Your task to perform on an android device: Go to Reddit.com Image 0: 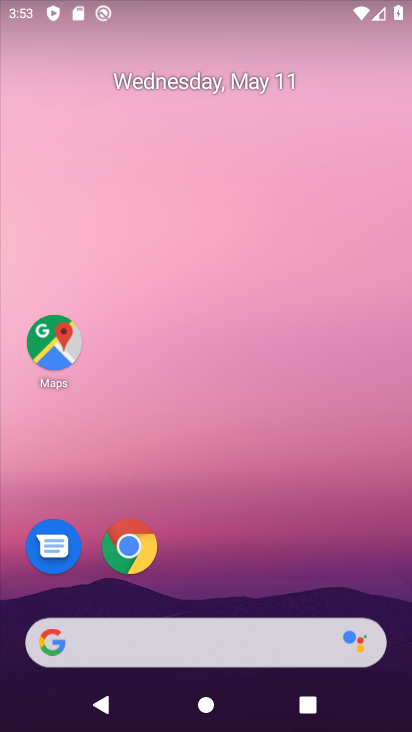
Step 0: drag from (159, 615) to (219, 224)
Your task to perform on an android device: Go to Reddit.com Image 1: 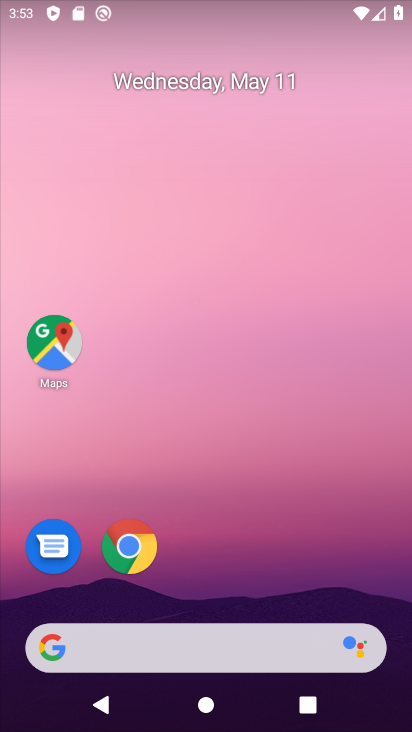
Step 1: click (126, 543)
Your task to perform on an android device: Go to Reddit.com Image 2: 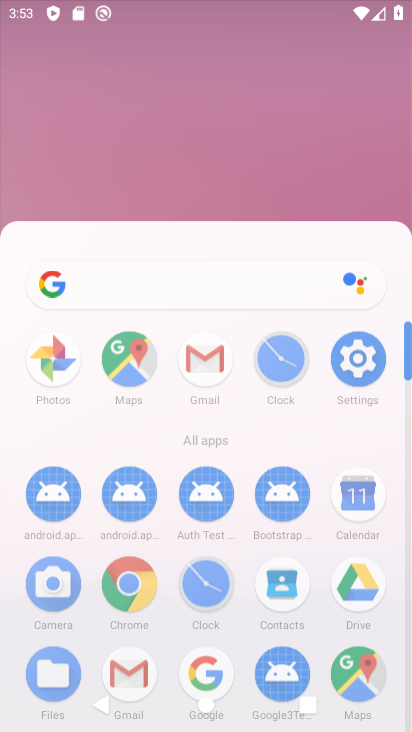
Step 2: drag from (174, 627) to (183, 259)
Your task to perform on an android device: Go to Reddit.com Image 3: 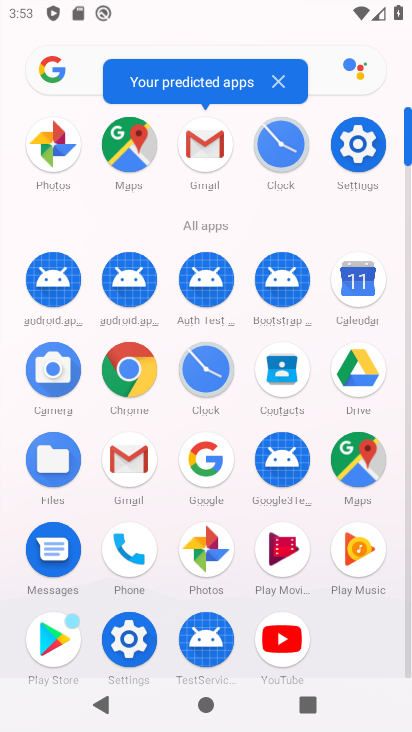
Step 3: click (133, 362)
Your task to perform on an android device: Go to Reddit.com Image 4: 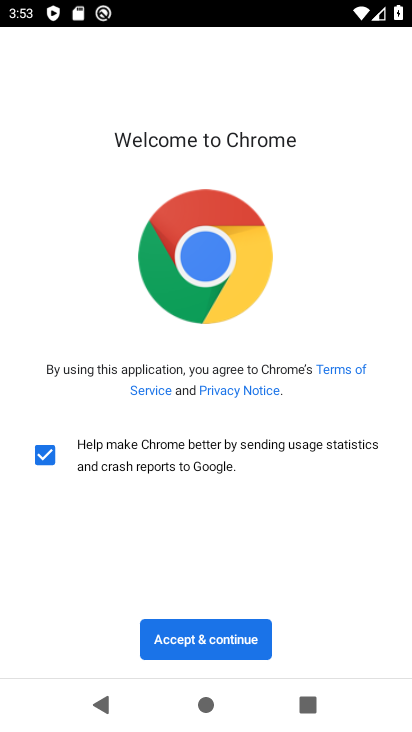
Step 4: click (208, 636)
Your task to perform on an android device: Go to Reddit.com Image 5: 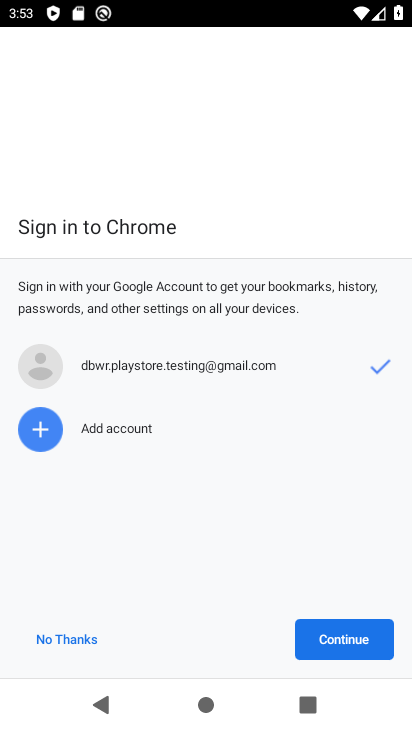
Step 5: click (343, 648)
Your task to perform on an android device: Go to Reddit.com Image 6: 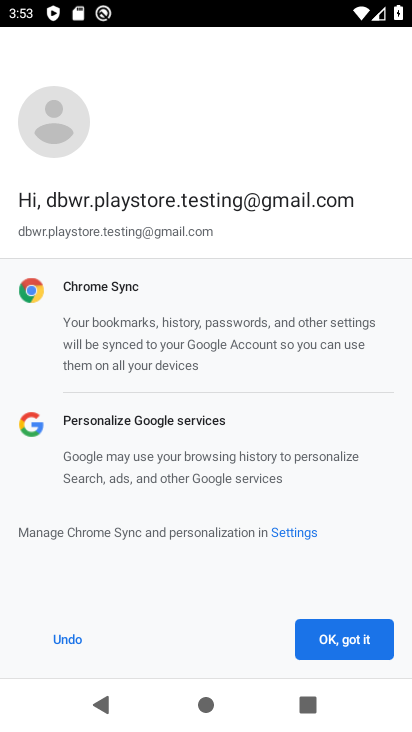
Step 6: click (330, 642)
Your task to perform on an android device: Go to Reddit.com Image 7: 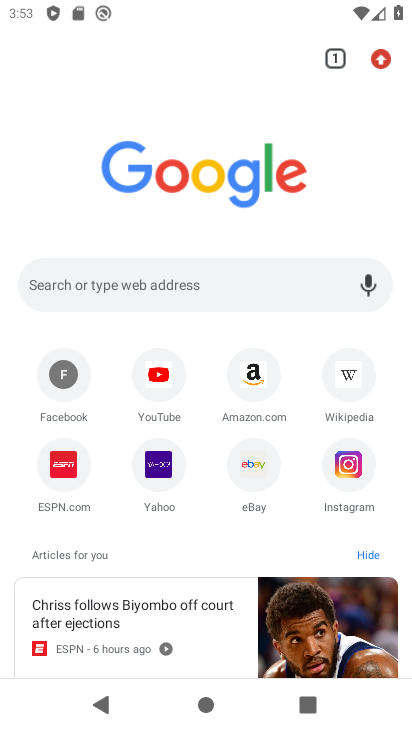
Step 7: click (79, 273)
Your task to perform on an android device: Go to Reddit.com Image 8: 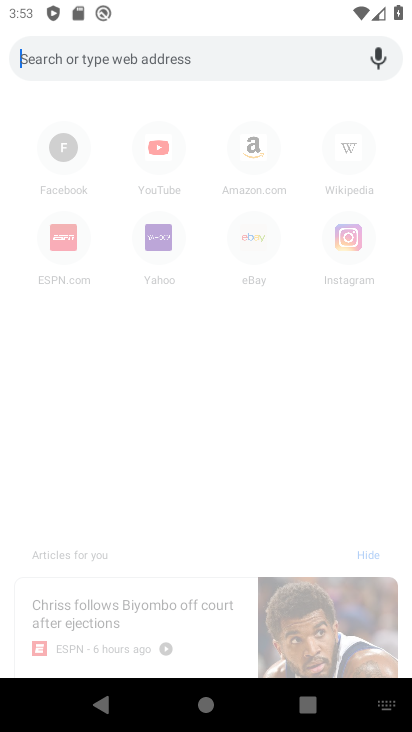
Step 8: type "reddit.com"
Your task to perform on an android device: Go to Reddit.com Image 9: 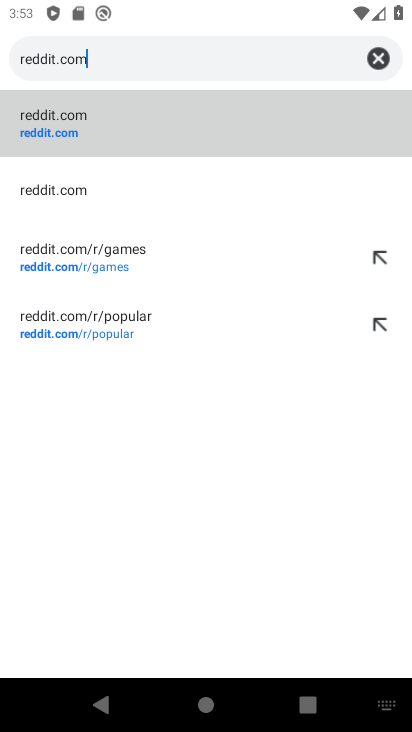
Step 9: click (80, 114)
Your task to perform on an android device: Go to Reddit.com Image 10: 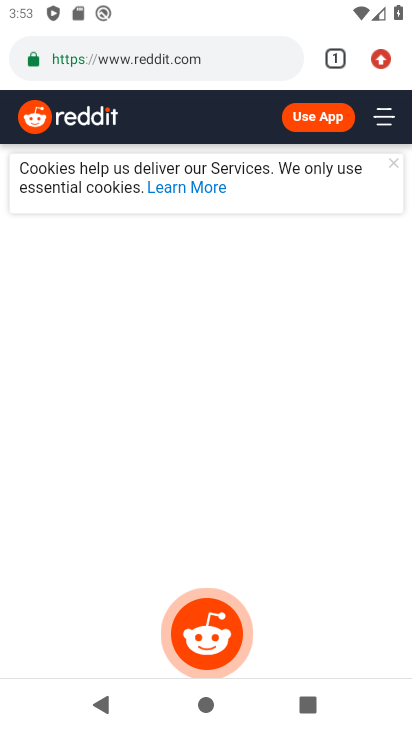
Step 10: task complete